Your task to perform on an android device: change notifications settings Image 0: 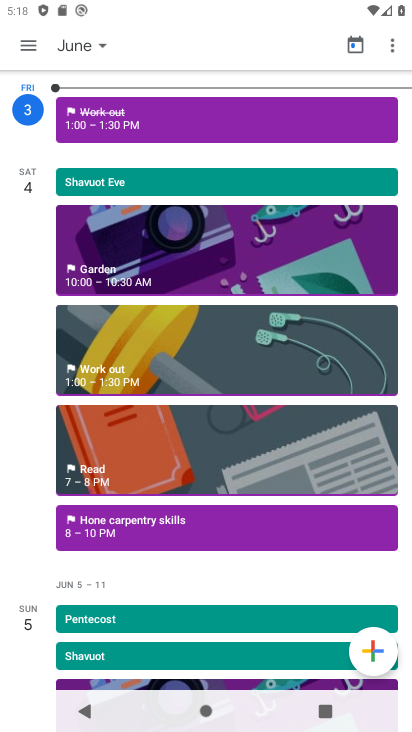
Step 0: press home button
Your task to perform on an android device: change notifications settings Image 1: 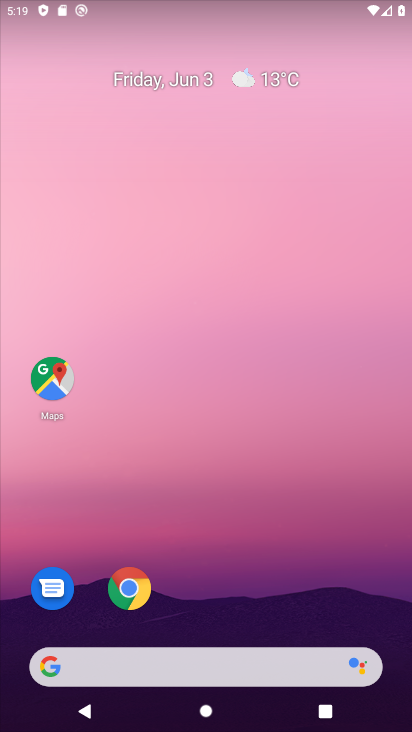
Step 1: drag from (45, 629) to (353, 147)
Your task to perform on an android device: change notifications settings Image 2: 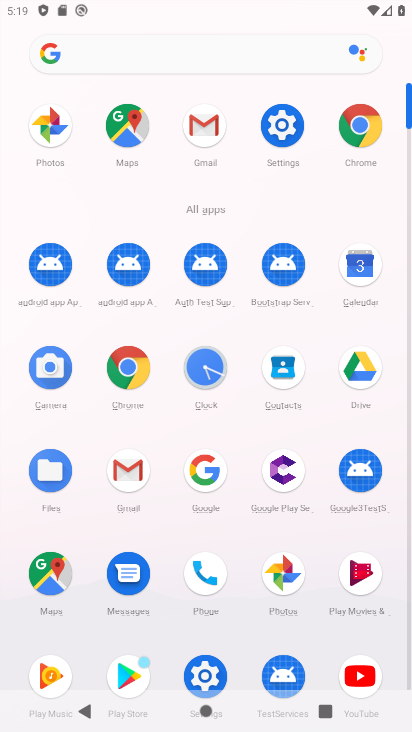
Step 2: click (274, 126)
Your task to perform on an android device: change notifications settings Image 3: 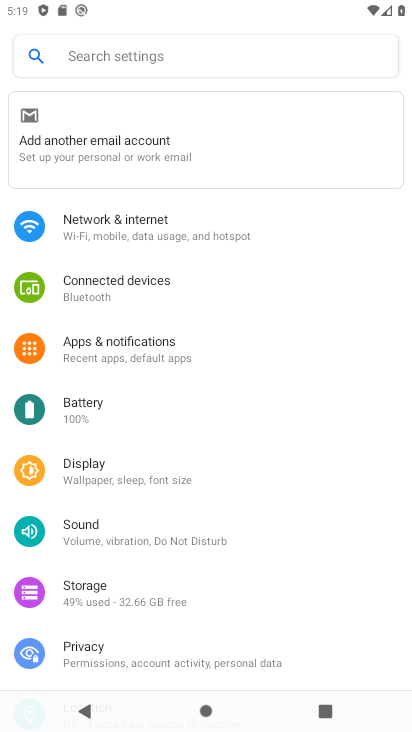
Step 3: click (250, 349)
Your task to perform on an android device: change notifications settings Image 4: 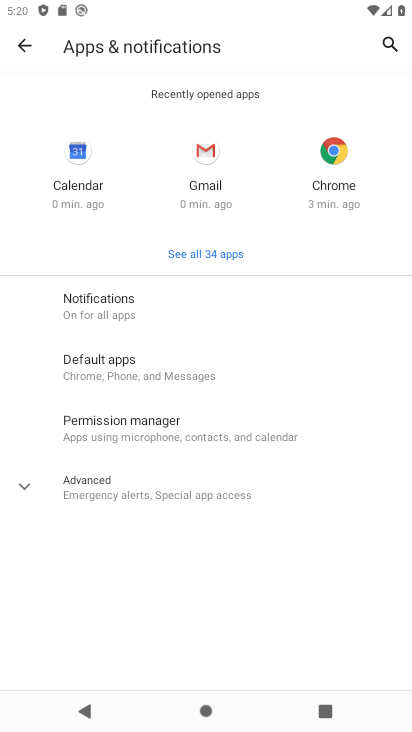
Step 4: task complete